Your task to perform on an android device: open a bookmark in the chrome app Image 0: 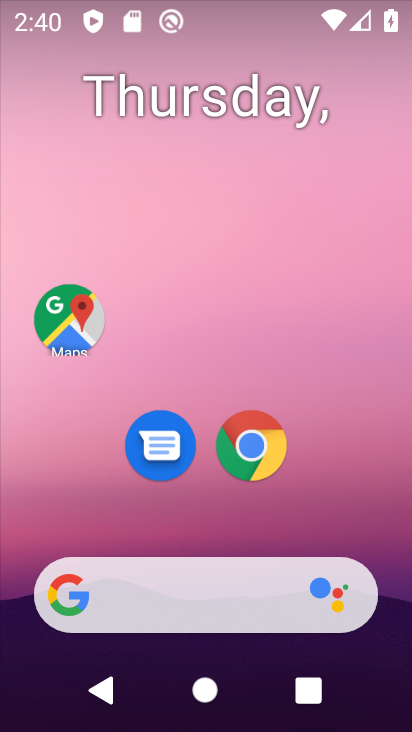
Step 0: click (255, 444)
Your task to perform on an android device: open a bookmark in the chrome app Image 1: 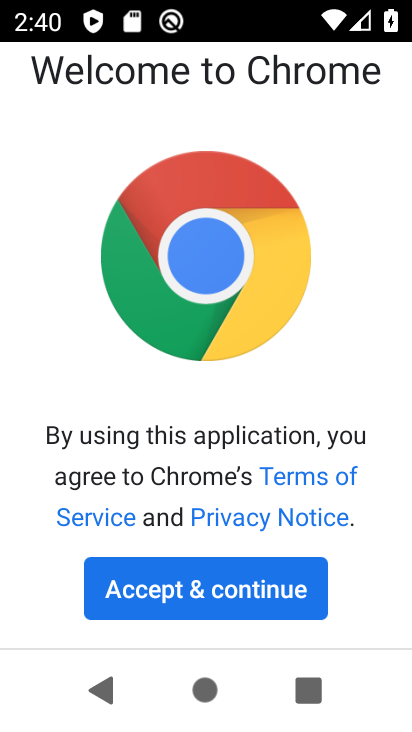
Step 1: click (238, 590)
Your task to perform on an android device: open a bookmark in the chrome app Image 2: 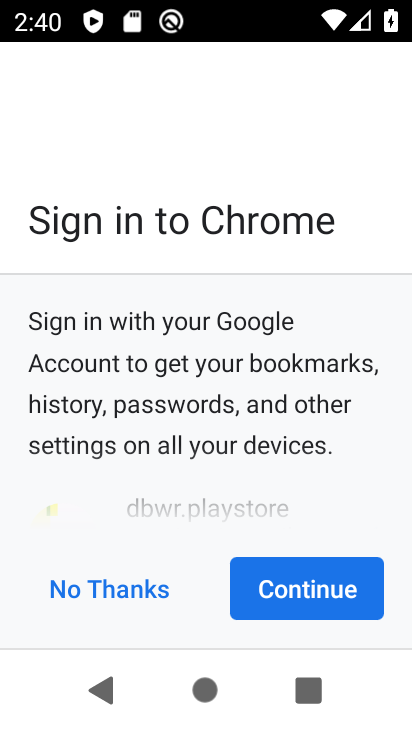
Step 2: click (274, 587)
Your task to perform on an android device: open a bookmark in the chrome app Image 3: 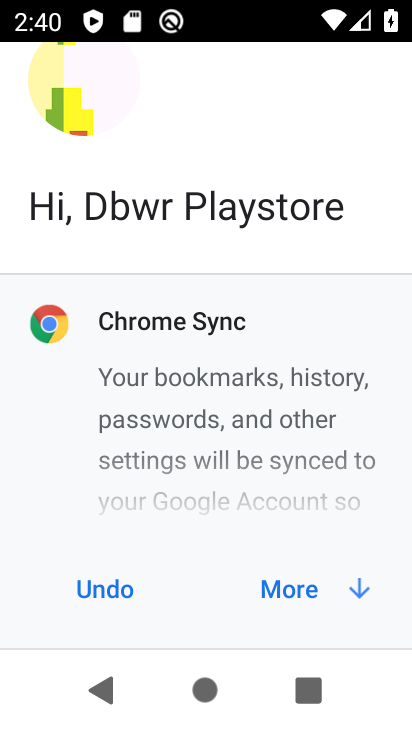
Step 3: click (279, 584)
Your task to perform on an android device: open a bookmark in the chrome app Image 4: 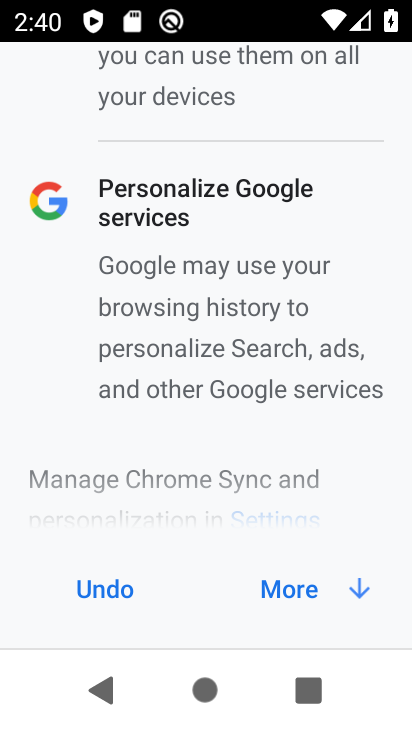
Step 4: click (279, 584)
Your task to perform on an android device: open a bookmark in the chrome app Image 5: 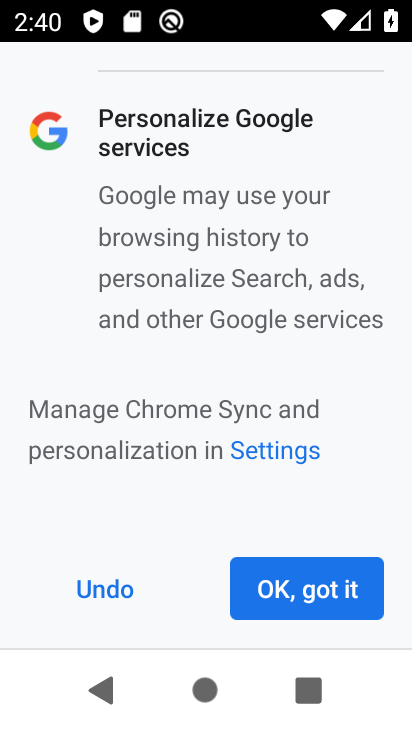
Step 5: click (279, 584)
Your task to perform on an android device: open a bookmark in the chrome app Image 6: 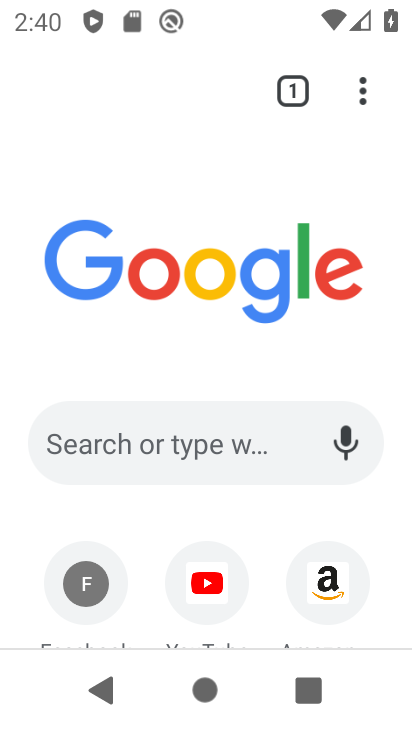
Step 6: click (363, 91)
Your task to perform on an android device: open a bookmark in the chrome app Image 7: 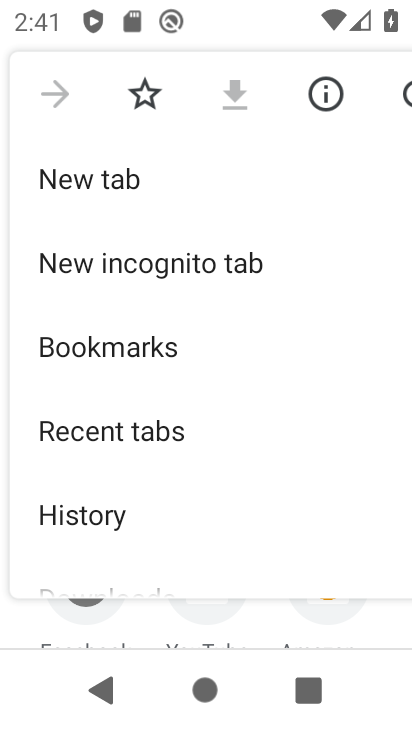
Step 7: drag from (200, 425) to (219, 322)
Your task to perform on an android device: open a bookmark in the chrome app Image 8: 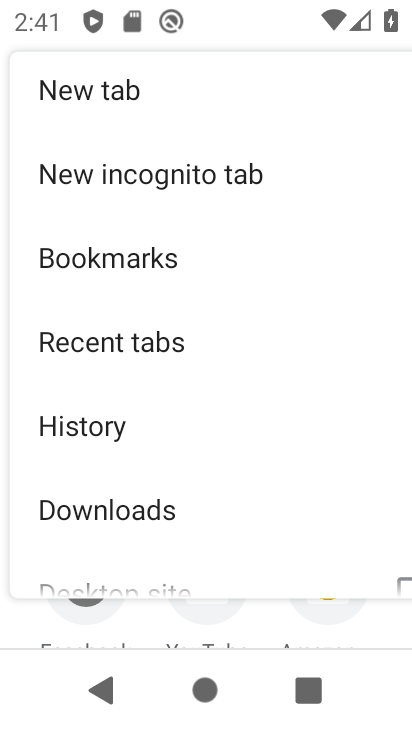
Step 8: drag from (184, 425) to (208, 298)
Your task to perform on an android device: open a bookmark in the chrome app Image 9: 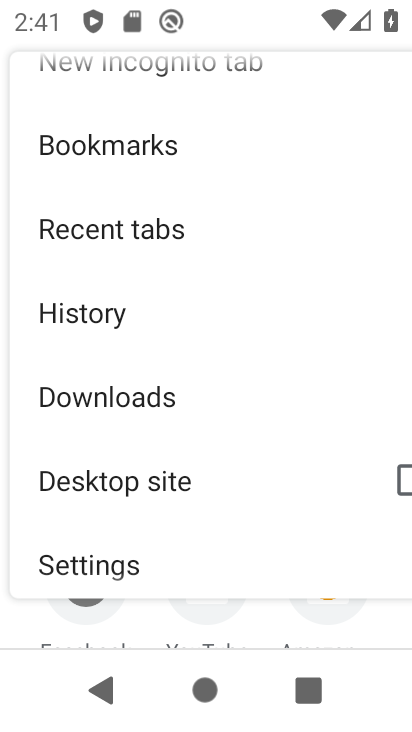
Step 9: drag from (126, 437) to (191, 310)
Your task to perform on an android device: open a bookmark in the chrome app Image 10: 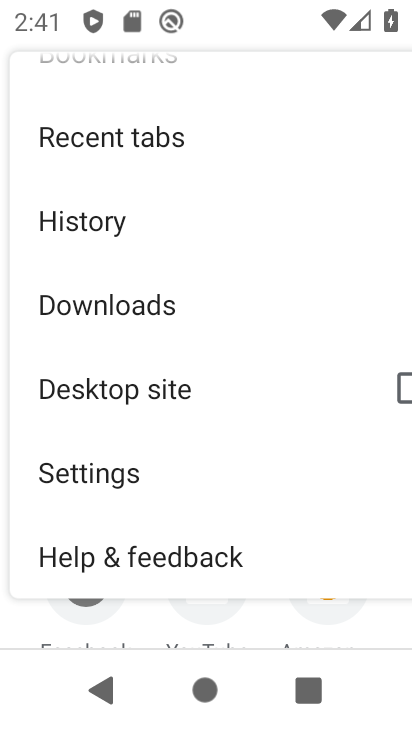
Step 10: drag from (219, 215) to (228, 411)
Your task to perform on an android device: open a bookmark in the chrome app Image 11: 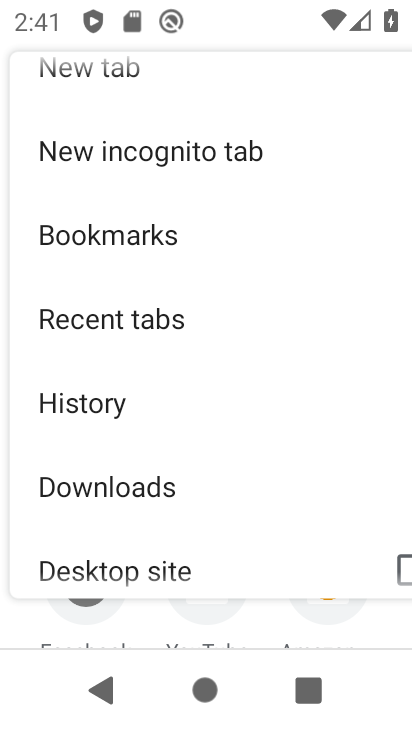
Step 11: click (139, 241)
Your task to perform on an android device: open a bookmark in the chrome app Image 12: 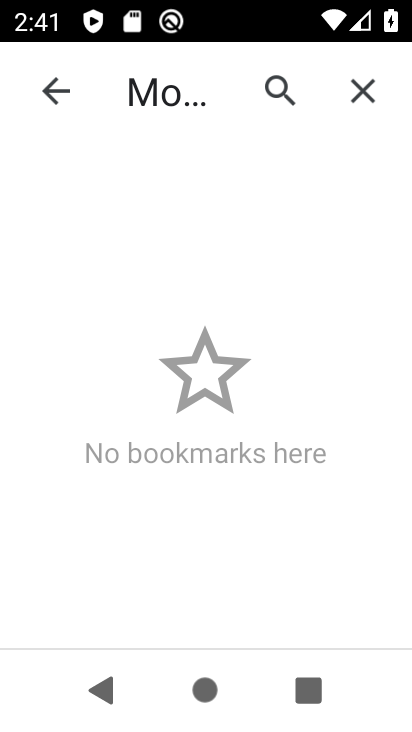
Step 12: task complete